Your task to perform on an android device: change text size in settings app Image 0: 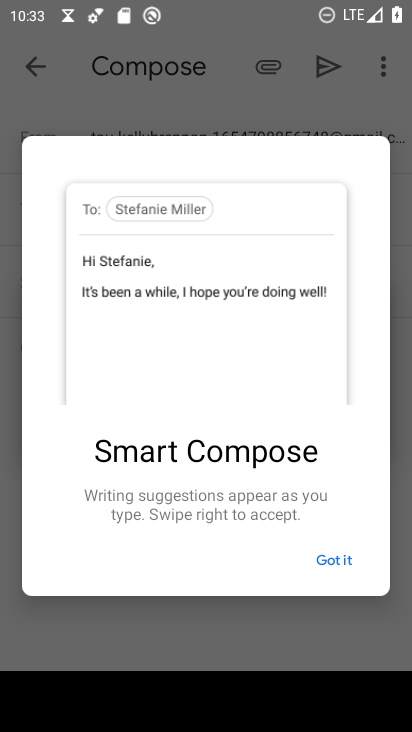
Step 0: press home button
Your task to perform on an android device: change text size in settings app Image 1: 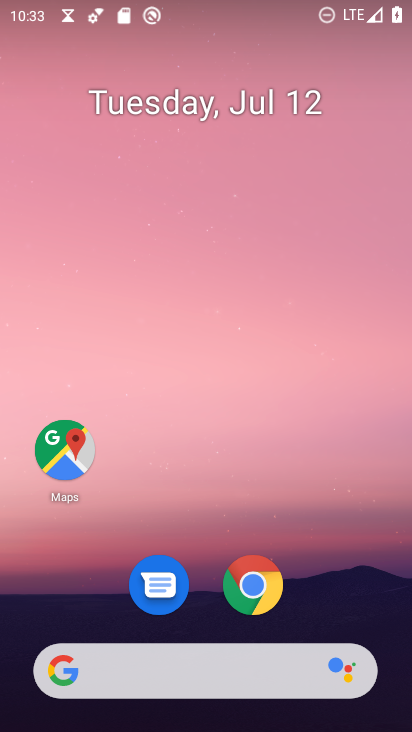
Step 1: drag from (177, 686) to (346, 90)
Your task to perform on an android device: change text size in settings app Image 2: 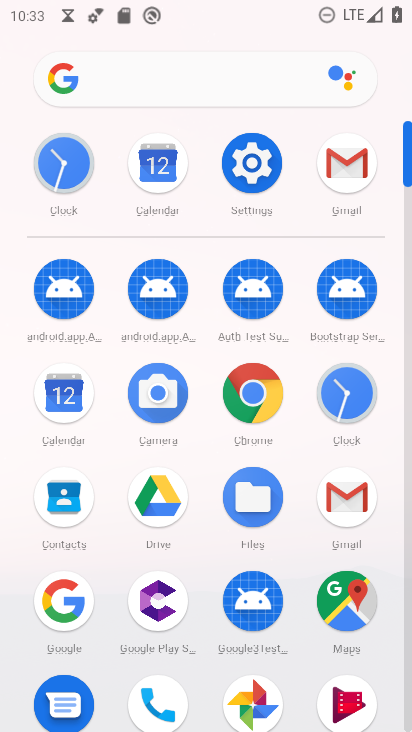
Step 2: click (255, 169)
Your task to perform on an android device: change text size in settings app Image 3: 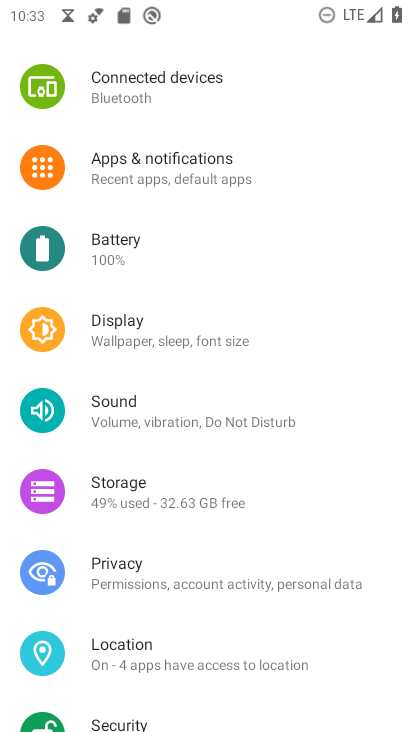
Step 3: click (159, 335)
Your task to perform on an android device: change text size in settings app Image 4: 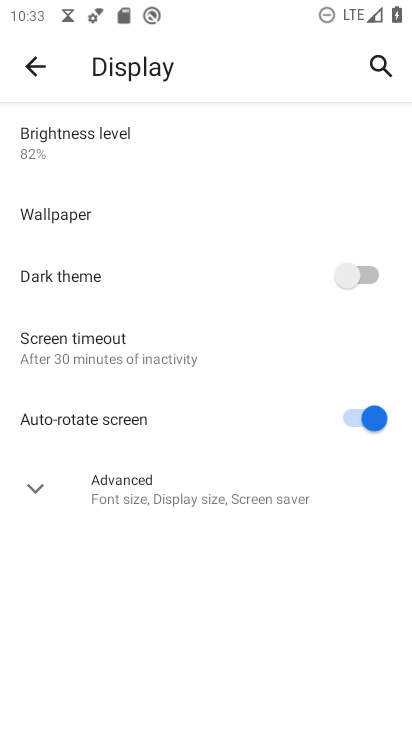
Step 4: click (113, 487)
Your task to perform on an android device: change text size in settings app Image 5: 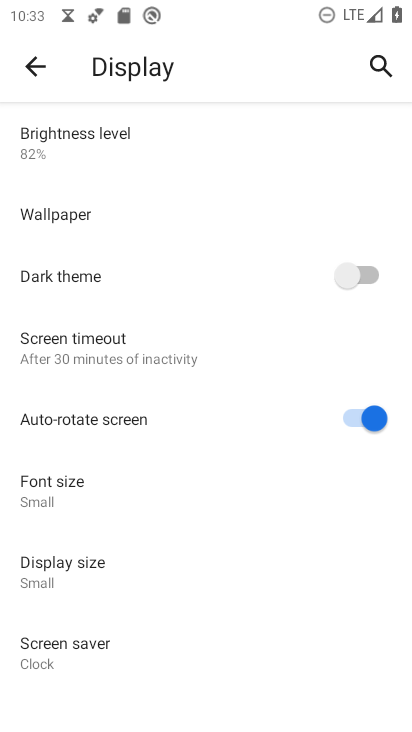
Step 5: click (43, 486)
Your task to perform on an android device: change text size in settings app Image 6: 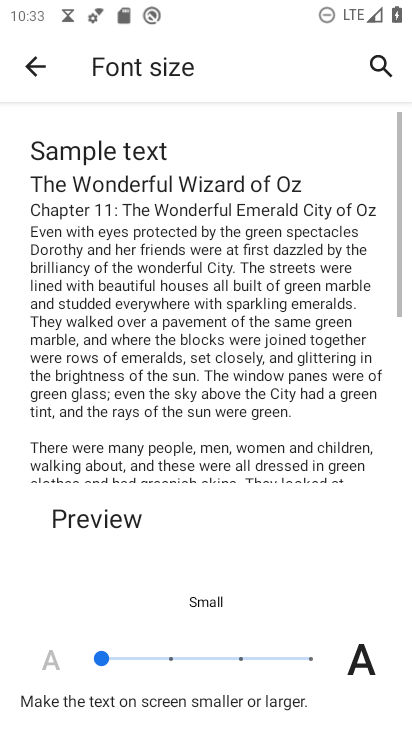
Step 6: click (171, 658)
Your task to perform on an android device: change text size in settings app Image 7: 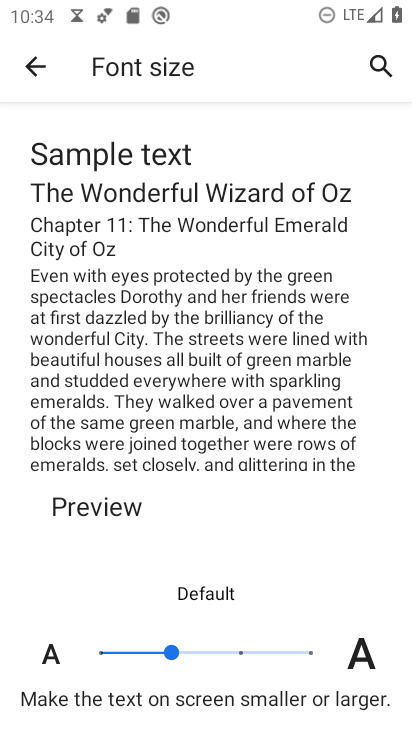
Step 7: task complete